Your task to perform on an android device: Open calendar and show me the fourth week of next month Image 0: 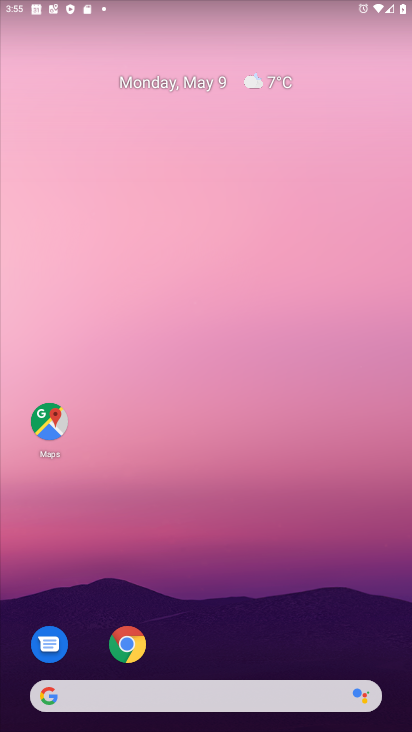
Step 0: drag from (105, 310) to (12, 46)
Your task to perform on an android device: Open calendar and show me the fourth week of next month Image 1: 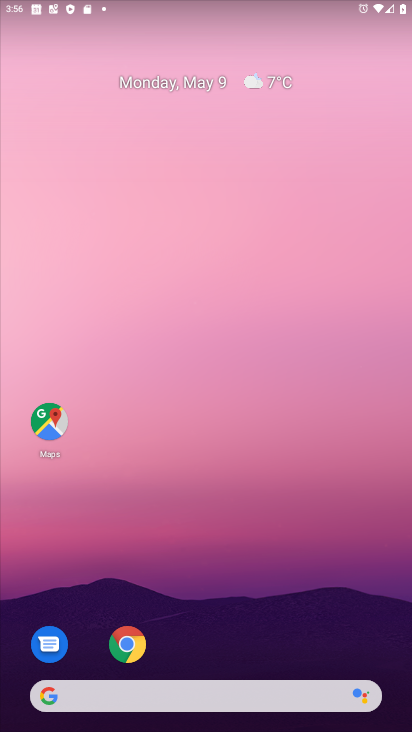
Step 1: drag from (174, 632) to (1, 88)
Your task to perform on an android device: Open calendar and show me the fourth week of next month Image 2: 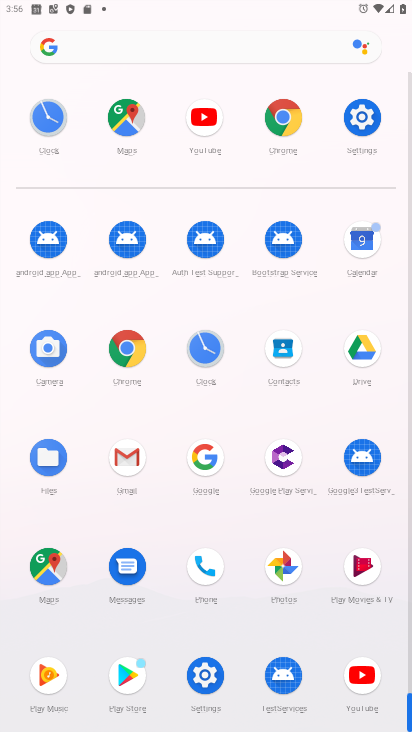
Step 2: click (359, 240)
Your task to perform on an android device: Open calendar and show me the fourth week of next month Image 3: 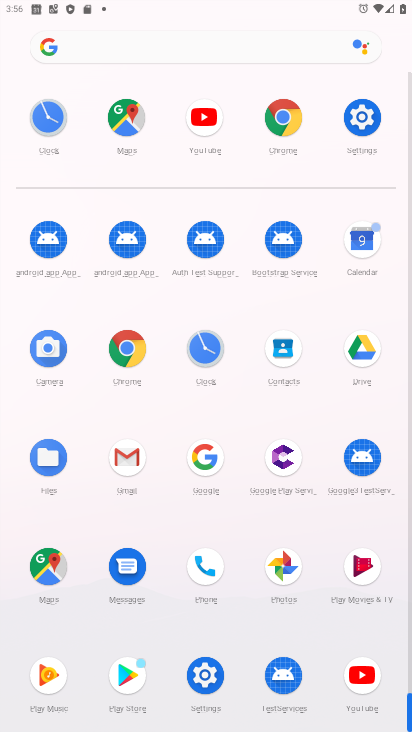
Step 3: click (359, 239)
Your task to perform on an android device: Open calendar and show me the fourth week of next month Image 4: 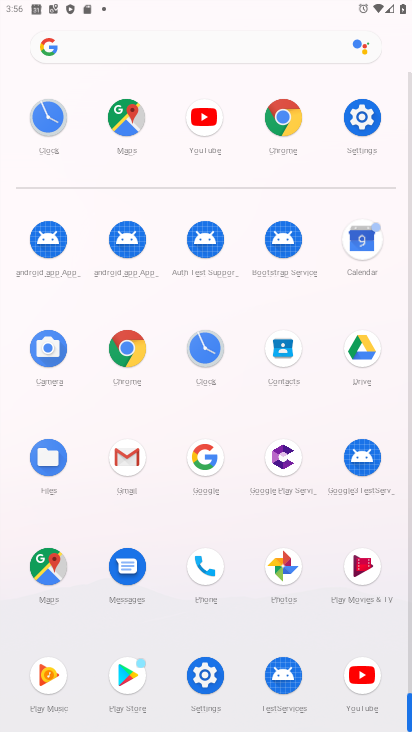
Step 4: click (359, 239)
Your task to perform on an android device: Open calendar and show me the fourth week of next month Image 5: 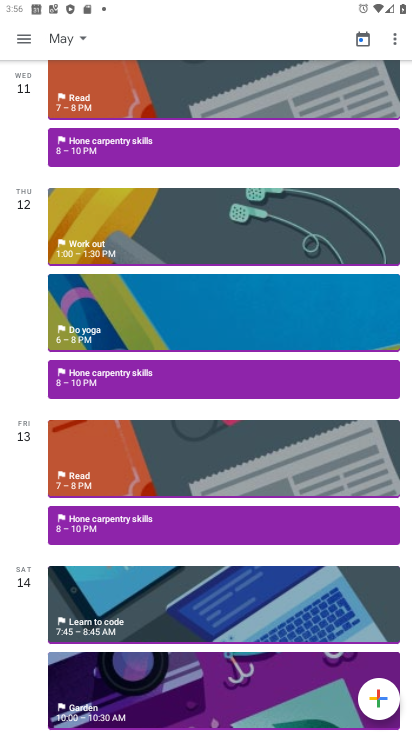
Step 5: drag from (81, 36) to (237, 439)
Your task to perform on an android device: Open calendar and show me the fourth week of next month Image 6: 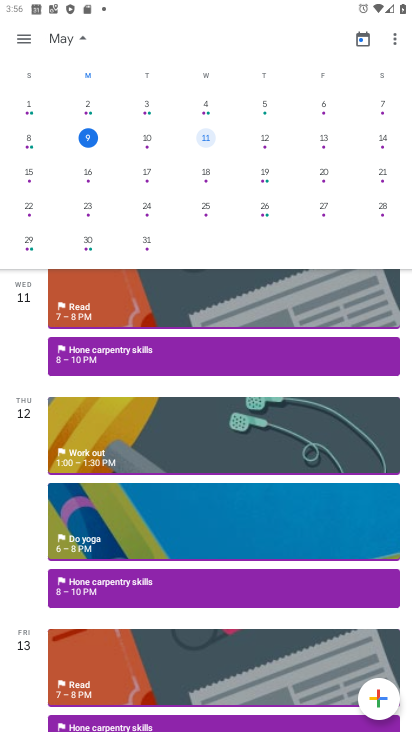
Step 6: drag from (217, 157) to (30, 358)
Your task to perform on an android device: Open calendar and show me the fourth week of next month Image 7: 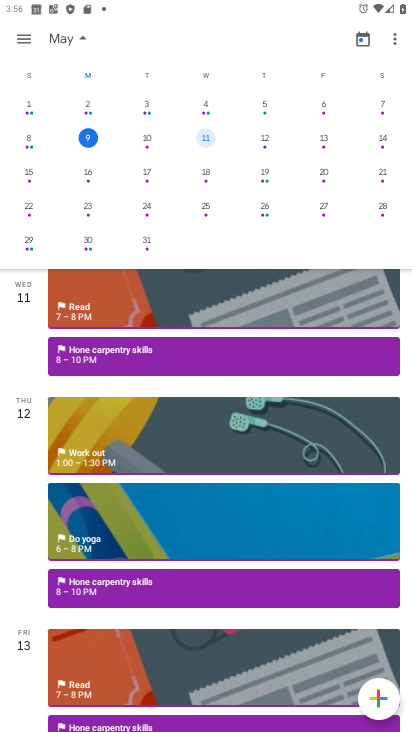
Step 7: drag from (188, 165) to (38, 266)
Your task to perform on an android device: Open calendar and show me the fourth week of next month Image 8: 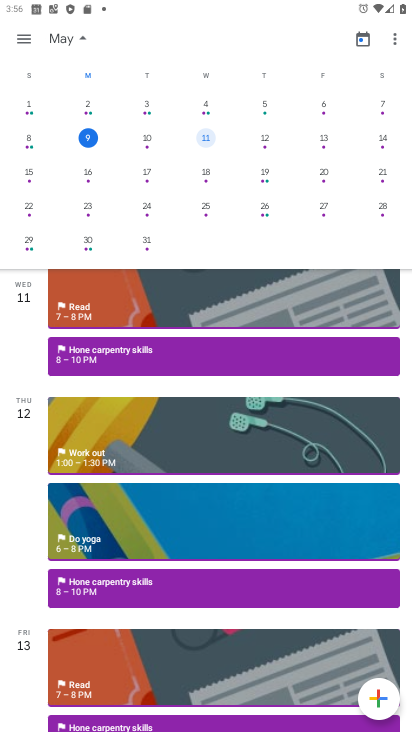
Step 8: drag from (90, 215) to (328, 152)
Your task to perform on an android device: Open calendar and show me the fourth week of next month Image 9: 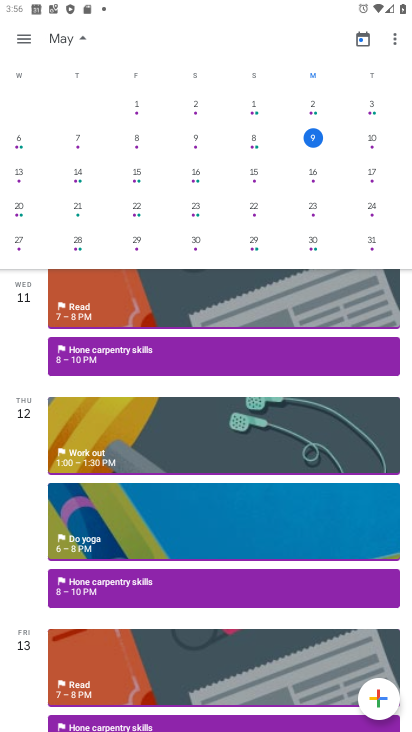
Step 9: drag from (3, 150) to (280, 134)
Your task to perform on an android device: Open calendar and show me the fourth week of next month Image 10: 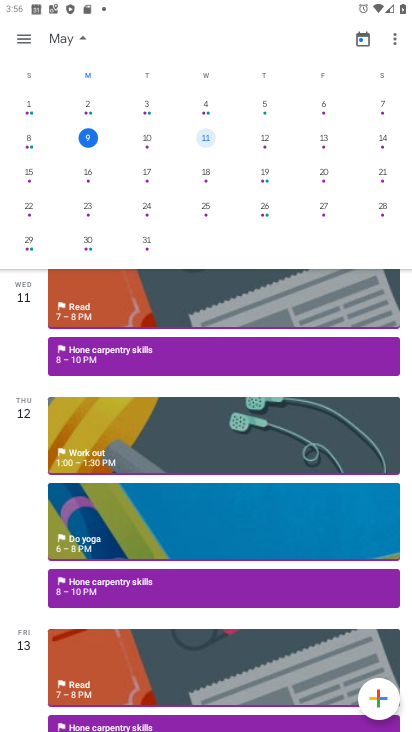
Step 10: drag from (211, 161) to (25, 283)
Your task to perform on an android device: Open calendar and show me the fourth week of next month Image 11: 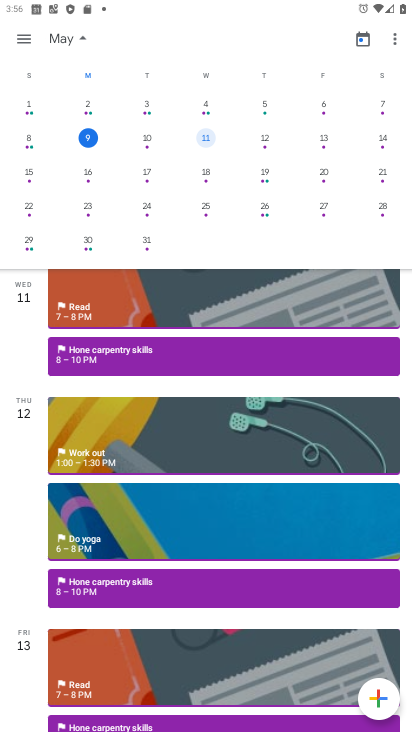
Step 11: drag from (214, 173) to (25, 280)
Your task to perform on an android device: Open calendar and show me the fourth week of next month Image 12: 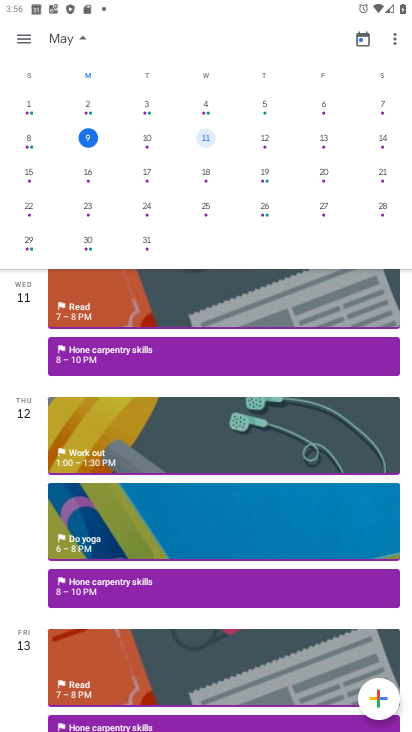
Step 12: drag from (192, 125) to (20, 251)
Your task to perform on an android device: Open calendar and show me the fourth week of next month Image 13: 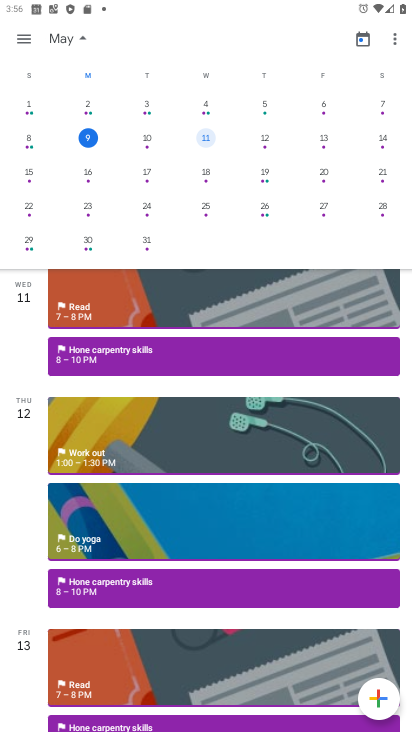
Step 13: drag from (205, 169) to (32, 221)
Your task to perform on an android device: Open calendar and show me the fourth week of next month Image 14: 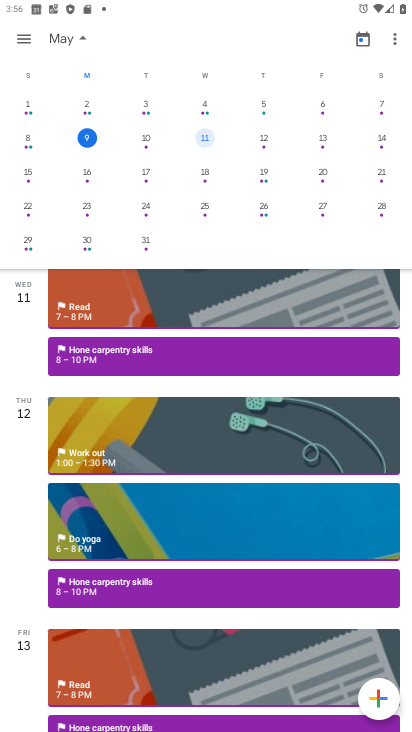
Step 14: drag from (206, 187) to (38, 248)
Your task to perform on an android device: Open calendar and show me the fourth week of next month Image 15: 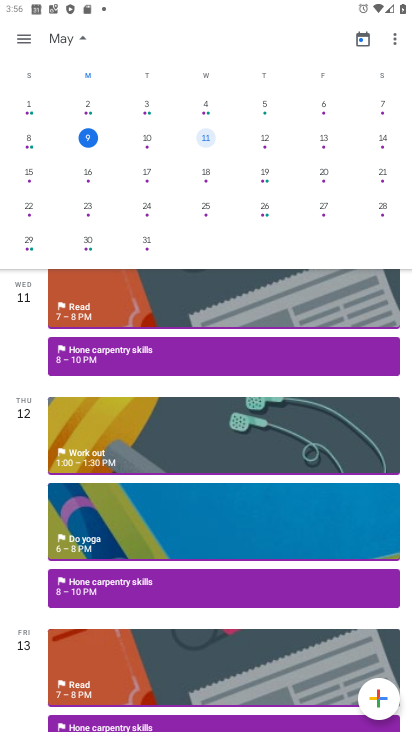
Step 15: drag from (169, 155) to (74, 285)
Your task to perform on an android device: Open calendar and show me the fourth week of next month Image 16: 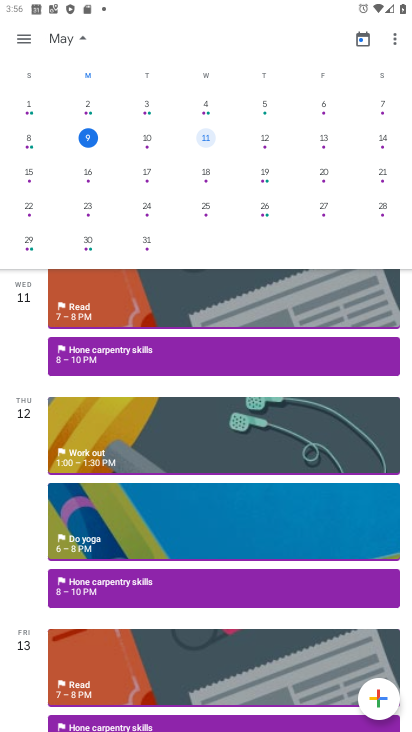
Step 16: drag from (276, 165) to (133, 147)
Your task to perform on an android device: Open calendar and show me the fourth week of next month Image 17: 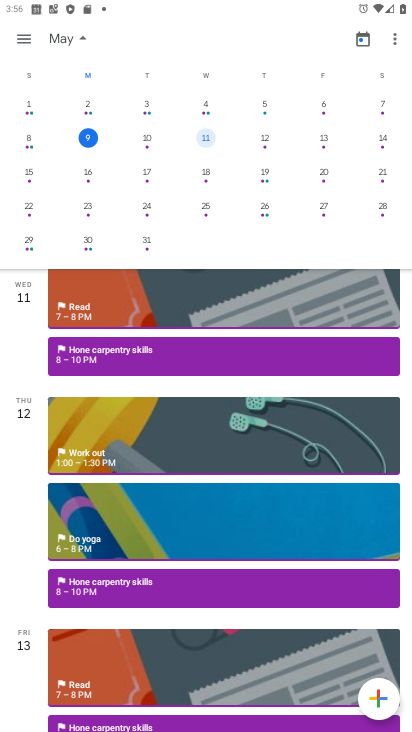
Step 17: drag from (218, 120) to (38, 241)
Your task to perform on an android device: Open calendar and show me the fourth week of next month Image 18: 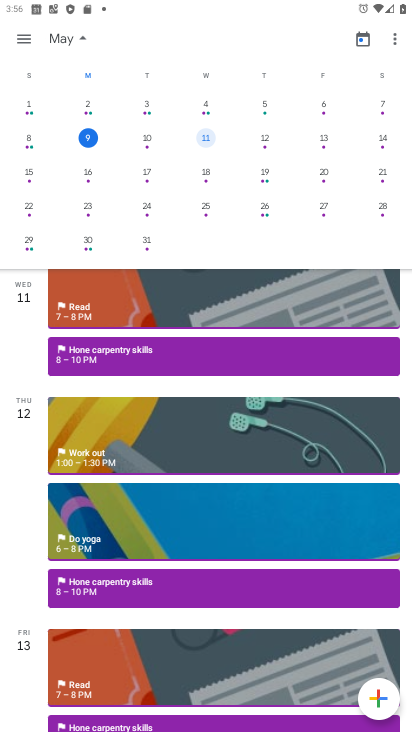
Step 18: drag from (266, 148) to (13, 263)
Your task to perform on an android device: Open calendar and show me the fourth week of next month Image 19: 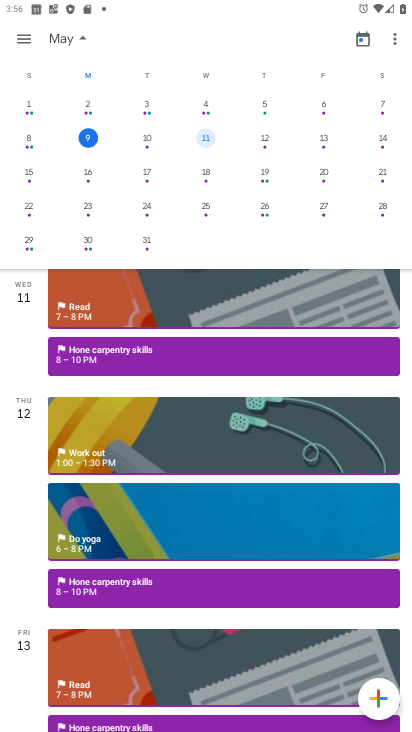
Step 19: drag from (250, 129) to (18, 186)
Your task to perform on an android device: Open calendar and show me the fourth week of next month Image 20: 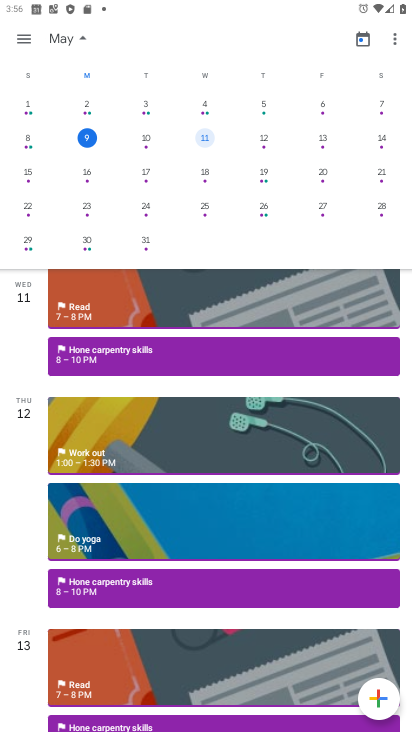
Step 20: drag from (179, 136) to (40, 142)
Your task to perform on an android device: Open calendar and show me the fourth week of next month Image 21: 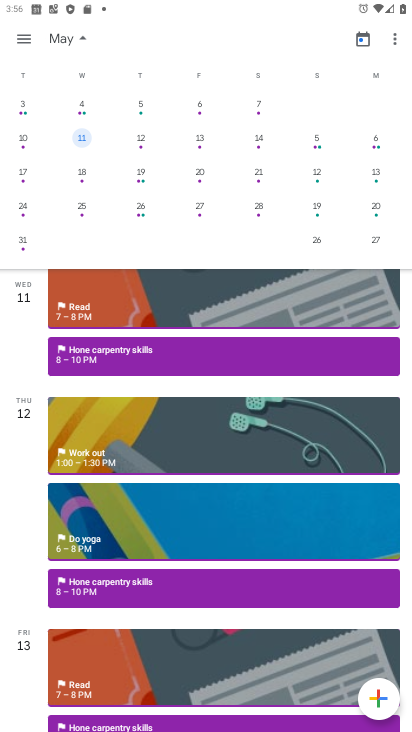
Step 21: drag from (132, 141) to (21, 164)
Your task to perform on an android device: Open calendar and show me the fourth week of next month Image 22: 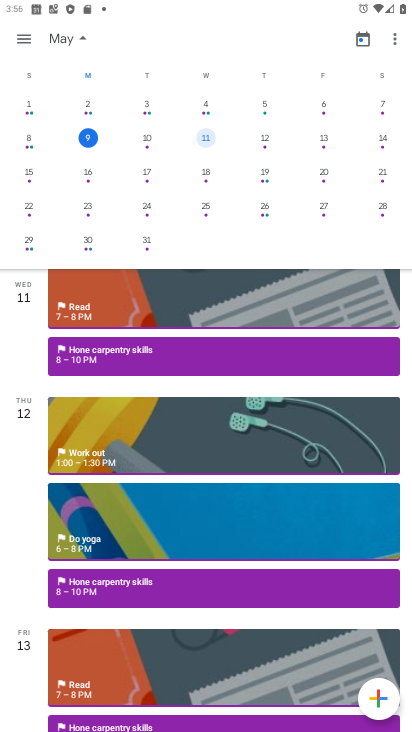
Step 22: drag from (191, 161) to (61, 189)
Your task to perform on an android device: Open calendar and show me the fourth week of next month Image 23: 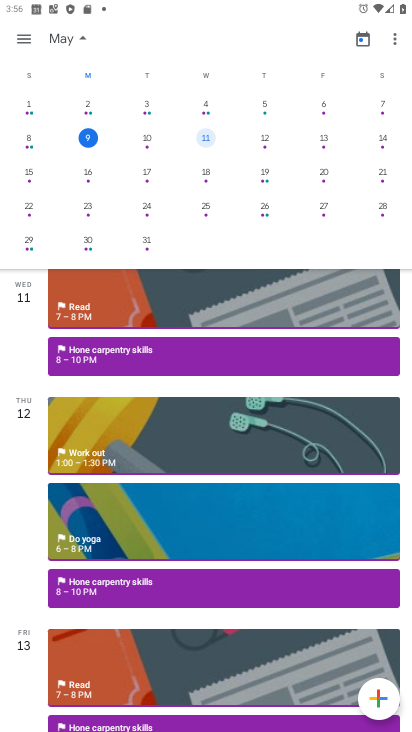
Step 23: drag from (262, 145) to (4, 207)
Your task to perform on an android device: Open calendar and show me the fourth week of next month Image 24: 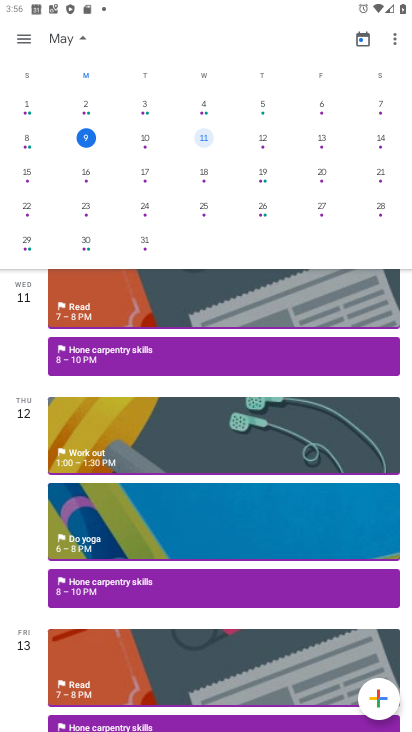
Step 24: drag from (193, 162) to (115, 231)
Your task to perform on an android device: Open calendar and show me the fourth week of next month Image 25: 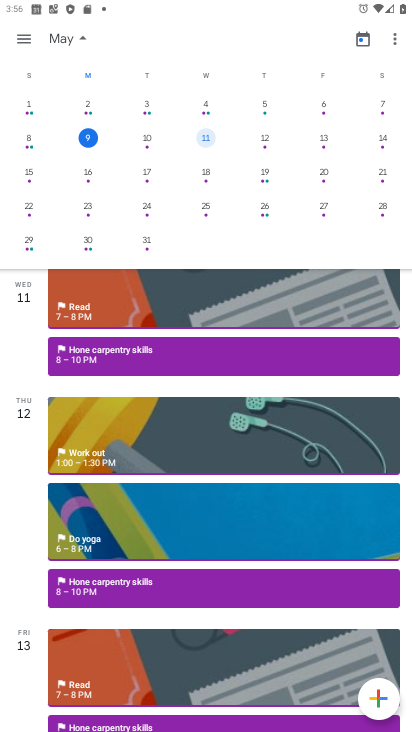
Step 25: drag from (244, 169) to (10, 135)
Your task to perform on an android device: Open calendar and show me the fourth week of next month Image 26: 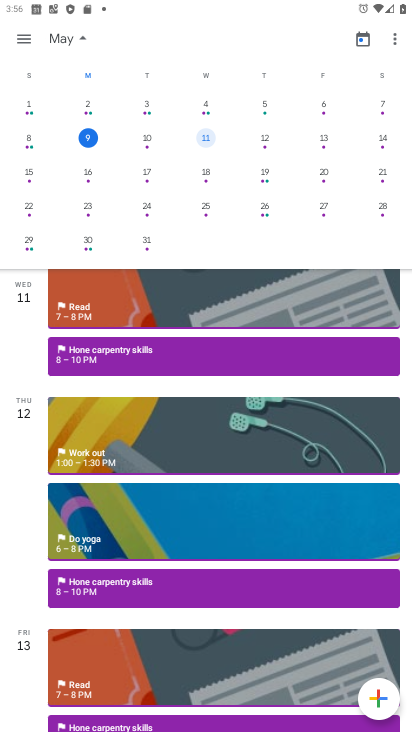
Step 26: drag from (181, 164) to (1, 255)
Your task to perform on an android device: Open calendar and show me the fourth week of next month Image 27: 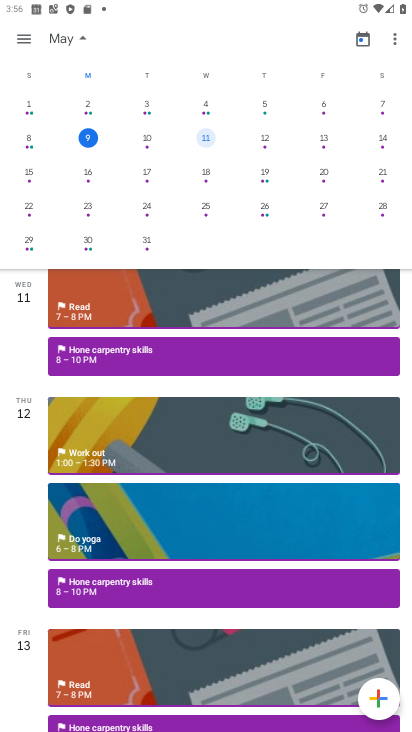
Step 27: drag from (206, 151) to (3, 270)
Your task to perform on an android device: Open calendar and show me the fourth week of next month Image 28: 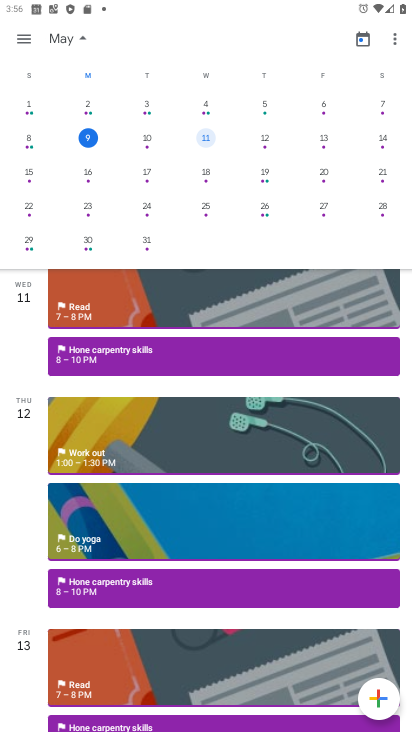
Step 28: drag from (254, 161) to (24, 152)
Your task to perform on an android device: Open calendar and show me the fourth week of next month Image 29: 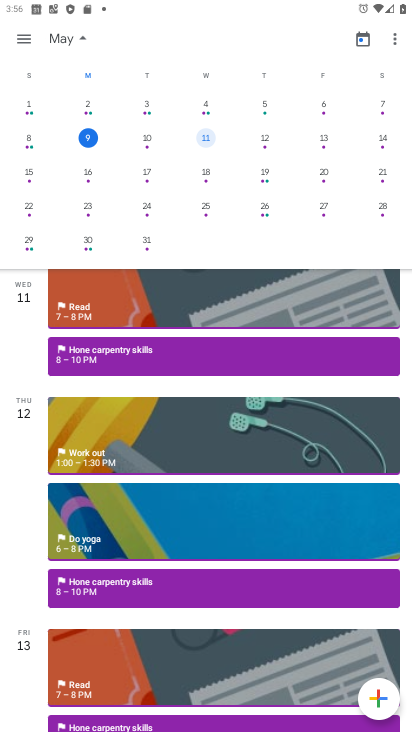
Step 29: drag from (172, 106) to (159, 170)
Your task to perform on an android device: Open calendar and show me the fourth week of next month Image 30: 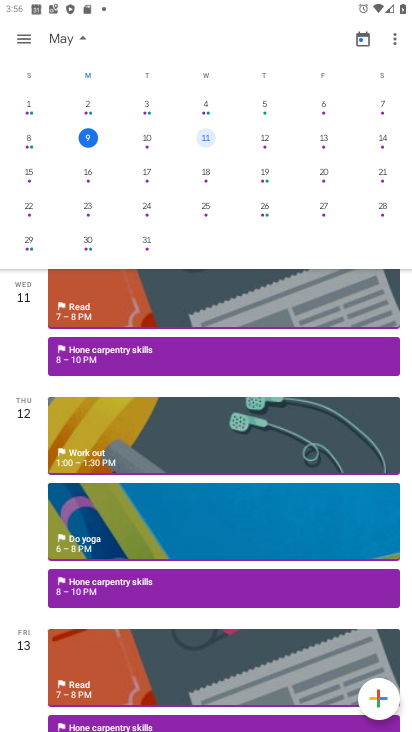
Step 30: drag from (172, 188) to (20, 167)
Your task to perform on an android device: Open calendar and show me the fourth week of next month Image 31: 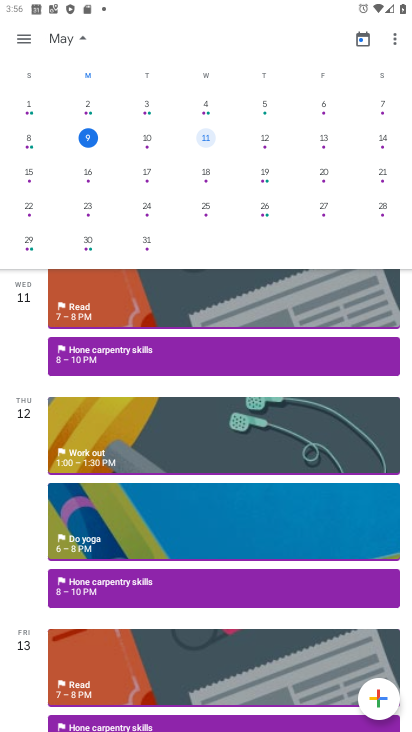
Step 31: drag from (113, 213) to (6, 126)
Your task to perform on an android device: Open calendar and show me the fourth week of next month Image 32: 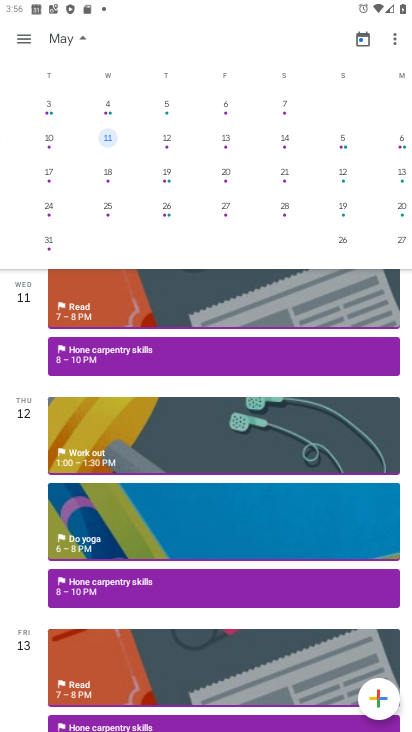
Step 32: drag from (221, 106) to (56, 123)
Your task to perform on an android device: Open calendar and show me the fourth week of next month Image 33: 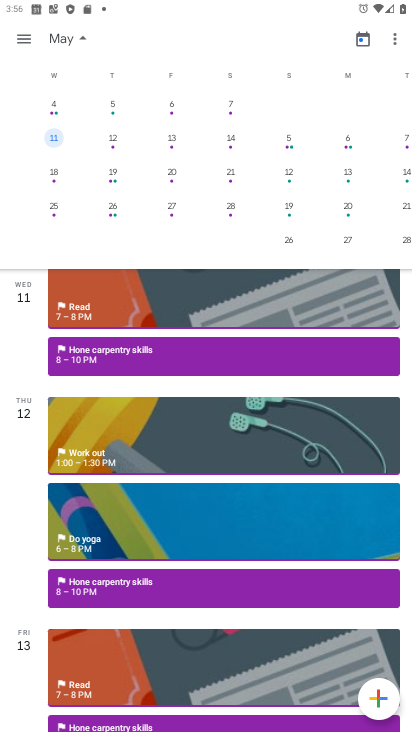
Step 33: drag from (382, 121) to (12, 179)
Your task to perform on an android device: Open calendar and show me the fourth week of next month Image 34: 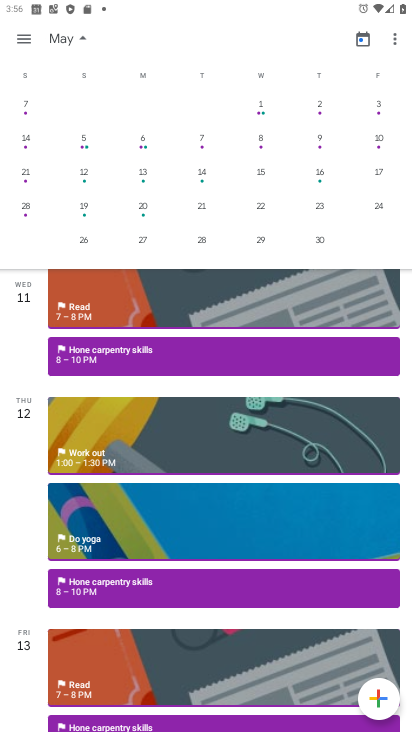
Step 34: drag from (203, 245) to (84, 185)
Your task to perform on an android device: Open calendar and show me the fourth week of next month Image 35: 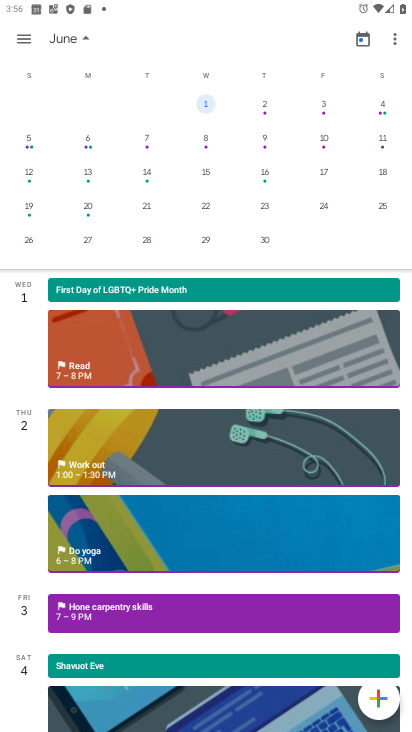
Step 35: click (209, 202)
Your task to perform on an android device: Open calendar and show me the fourth week of next month Image 36: 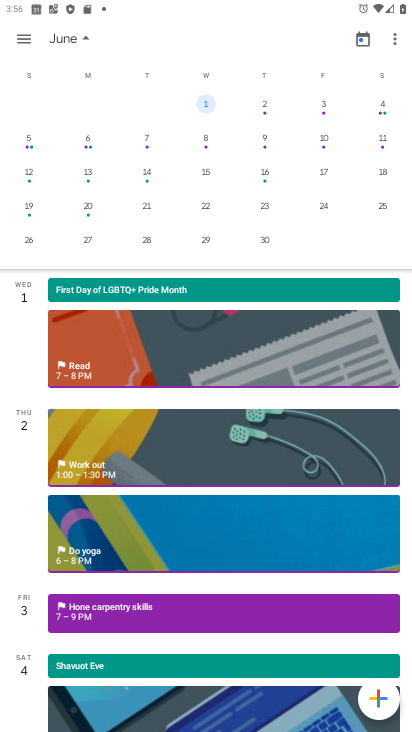
Step 36: click (209, 202)
Your task to perform on an android device: Open calendar and show me the fourth week of next month Image 37: 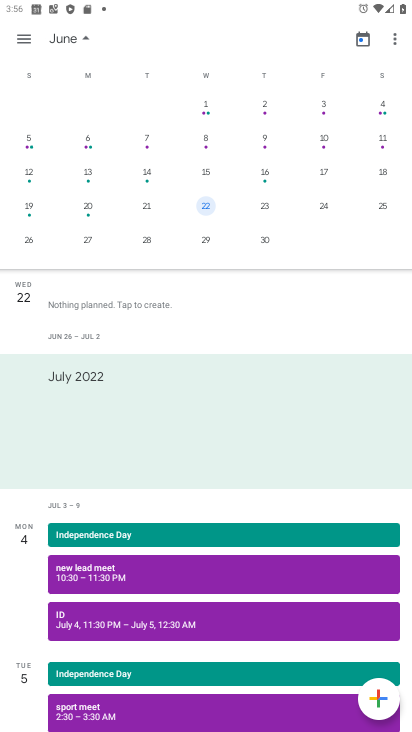
Step 37: click (210, 201)
Your task to perform on an android device: Open calendar and show me the fourth week of next month Image 38: 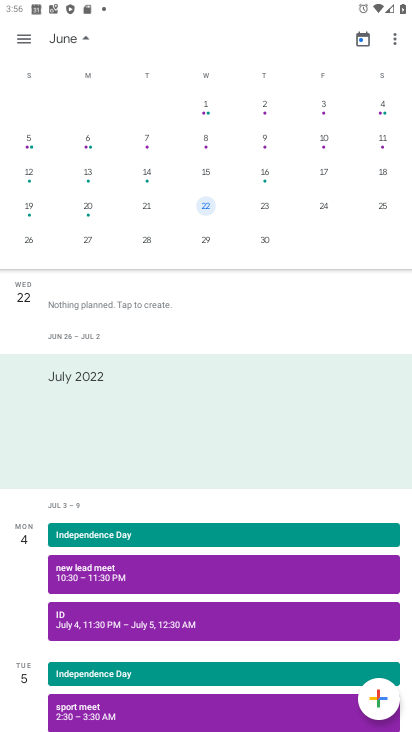
Step 38: click (211, 201)
Your task to perform on an android device: Open calendar and show me the fourth week of next month Image 39: 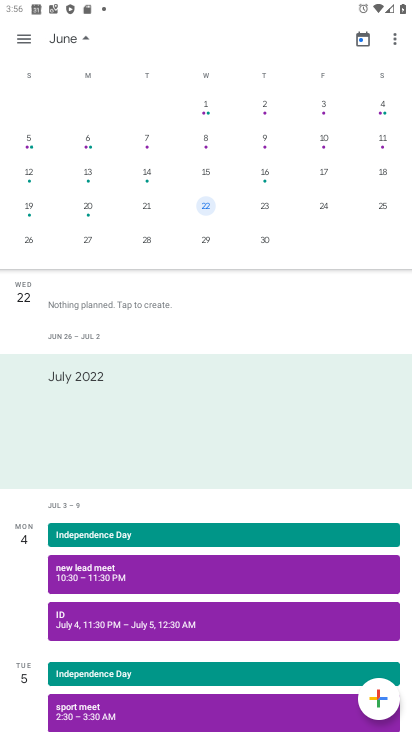
Step 39: task complete